Your task to perform on an android device: Open privacy settings Image 0: 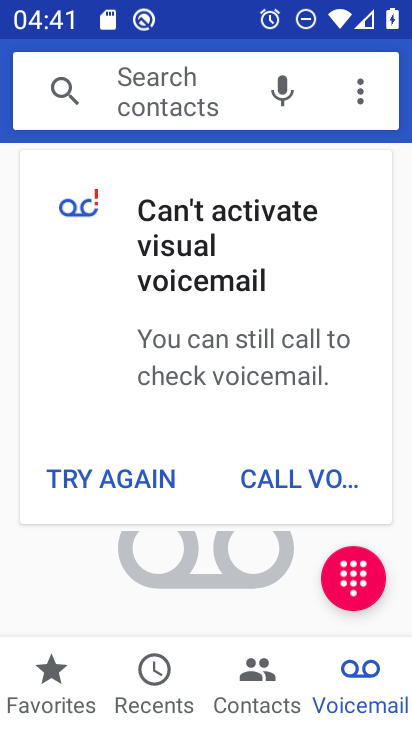
Step 0: press home button
Your task to perform on an android device: Open privacy settings Image 1: 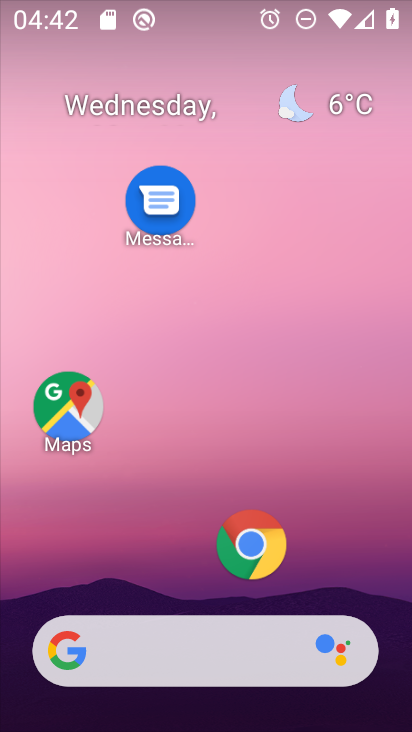
Step 1: drag from (312, 579) to (325, 173)
Your task to perform on an android device: Open privacy settings Image 2: 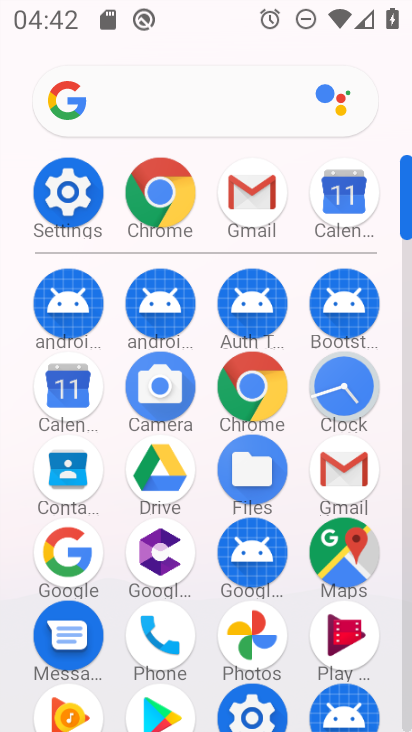
Step 2: click (53, 205)
Your task to perform on an android device: Open privacy settings Image 3: 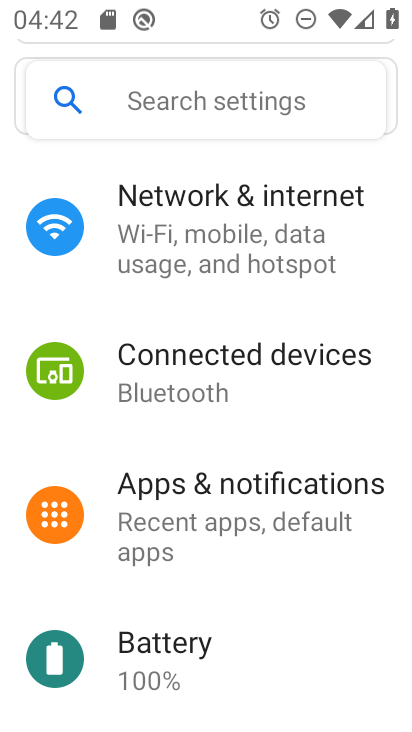
Step 3: drag from (170, 492) to (227, 164)
Your task to perform on an android device: Open privacy settings Image 4: 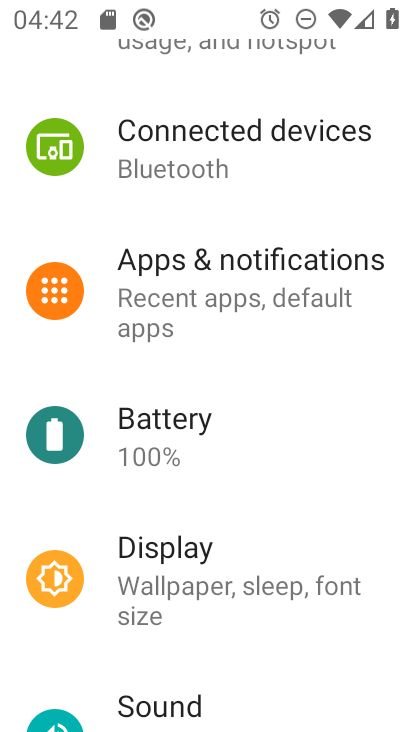
Step 4: drag from (190, 544) to (190, 293)
Your task to perform on an android device: Open privacy settings Image 5: 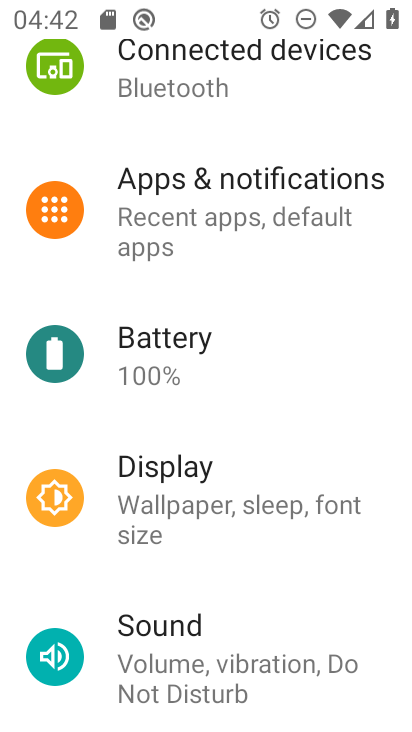
Step 5: drag from (247, 590) to (276, 290)
Your task to perform on an android device: Open privacy settings Image 6: 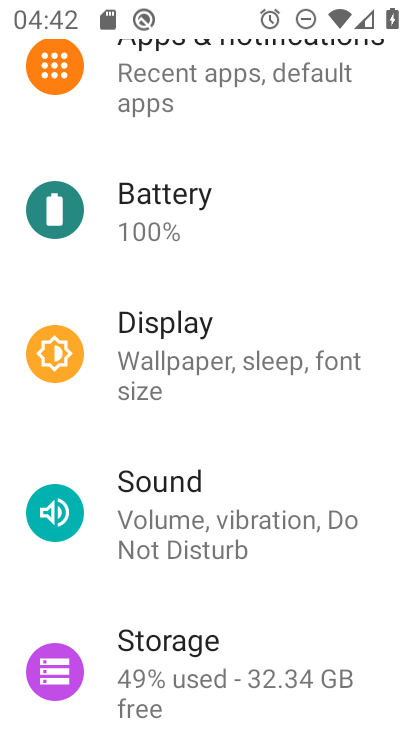
Step 6: drag from (215, 538) to (232, 185)
Your task to perform on an android device: Open privacy settings Image 7: 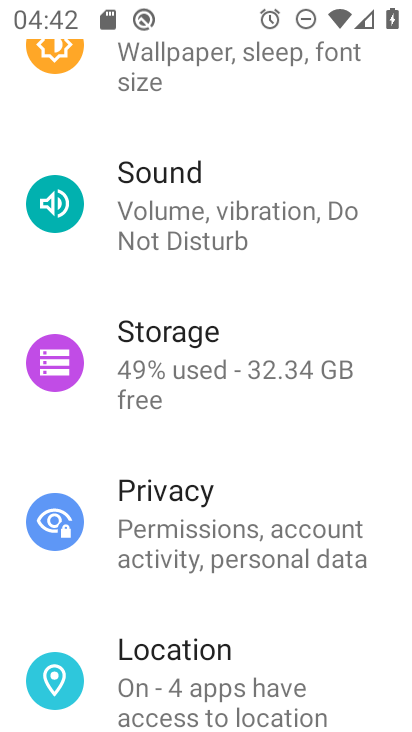
Step 7: click (223, 495)
Your task to perform on an android device: Open privacy settings Image 8: 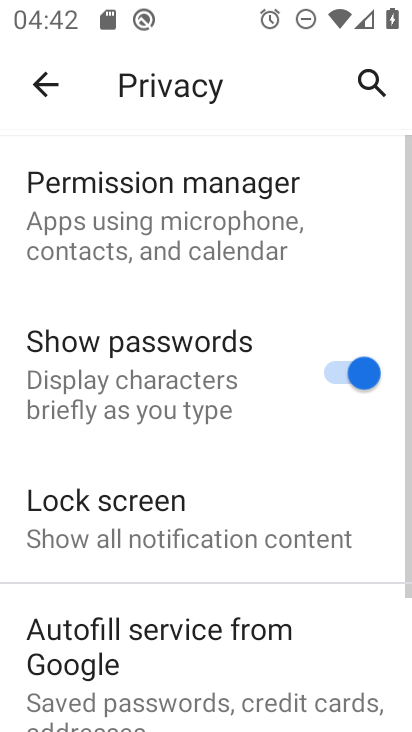
Step 8: task complete